Your task to perform on an android device: turn pop-ups on in chrome Image 0: 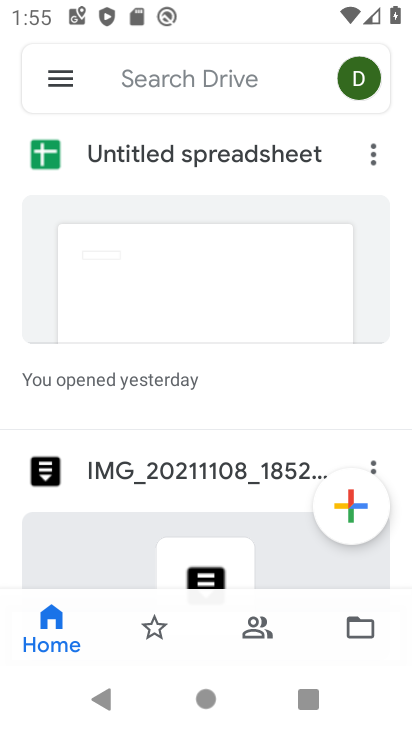
Step 0: press home button
Your task to perform on an android device: turn pop-ups on in chrome Image 1: 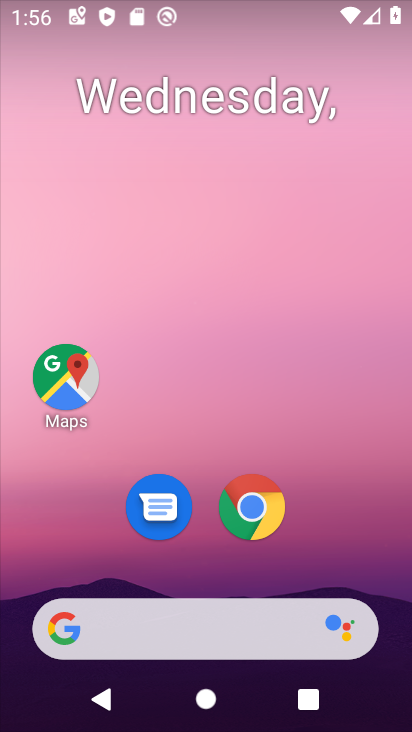
Step 1: drag from (369, 507) to (319, 177)
Your task to perform on an android device: turn pop-ups on in chrome Image 2: 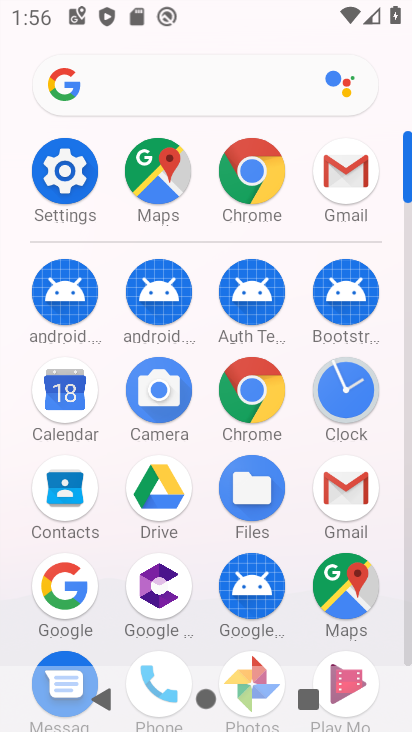
Step 2: click (269, 397)
Your task to perform on an android device: turn pop-ups on in chrome Image 3: 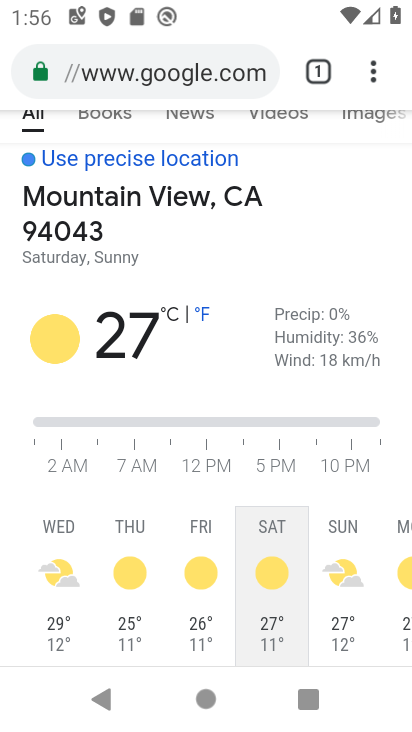
Step 3: drag from (370, 64) to (211, 493)
Your task to perform on an android device: turn pop-ups on in chrome Image 4: 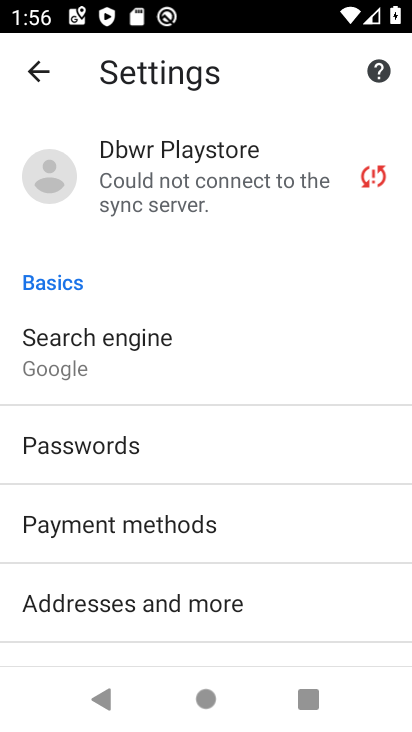
Step 4: drag from (291, 568) to (285, 291)
Your task to perform on an android device: turn pop-ups on in chrome Image 5: 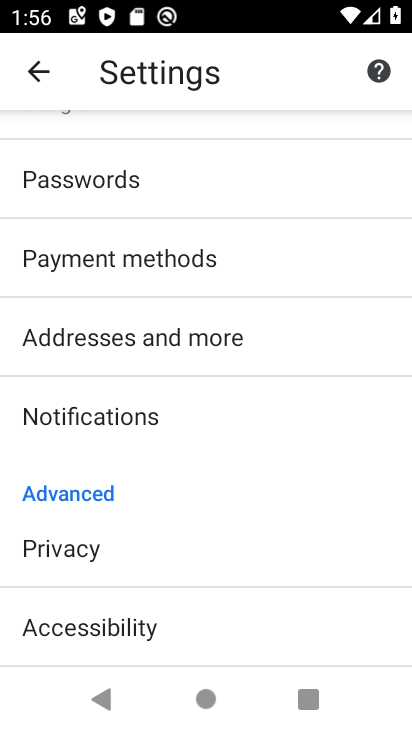
Step 5: drag from (272, 565) to (272, 283)
Your task to perform on an android device: turn pop-ups on in chrome Image 6: 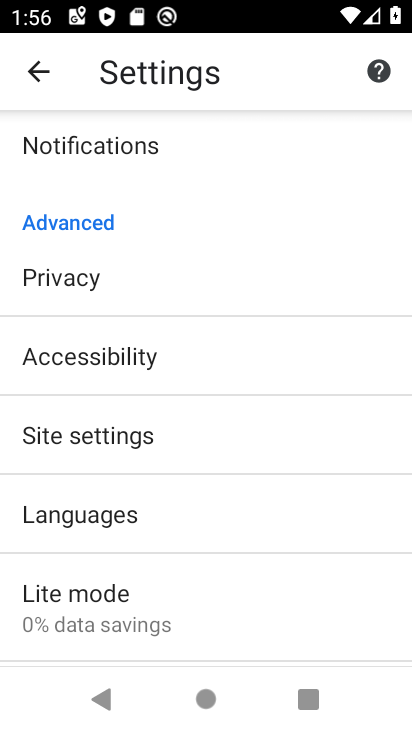
Step 6: click (173, 447)
Your task to perform on an android device: turn pop-ups on in chrome Image 7: 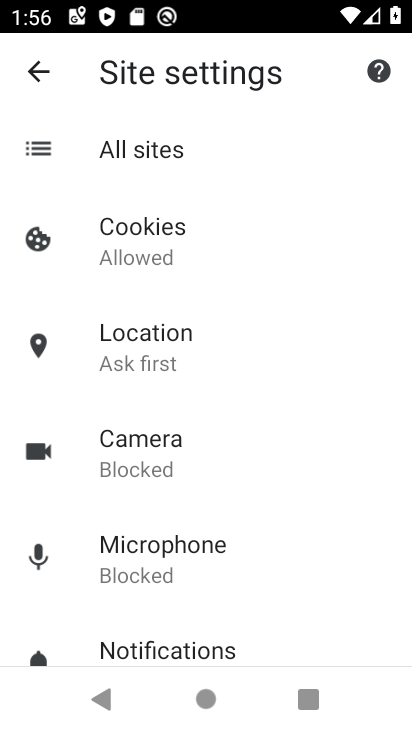
Step 7: drag from (275, 541) to (277, 317)
Your task to perform on an android device: turn pop-ups on in chrome Image 8: 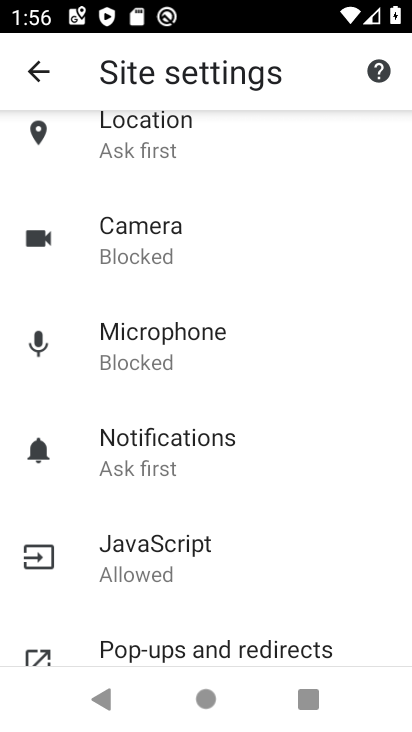
Step 8: drag from (284, 563) to (279, 266)
Your task to perform on an android device: turn pop-ups on in chrome Image 9: 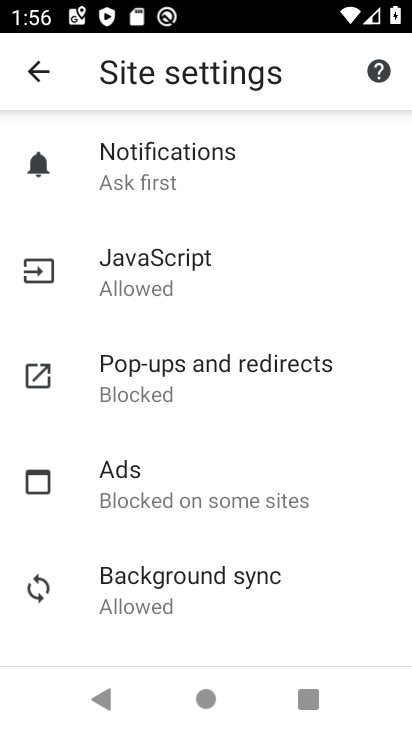
Step 9: click (205, 379)
Your task to perform on an android device: turn pop-ups on in chrome Image 10: 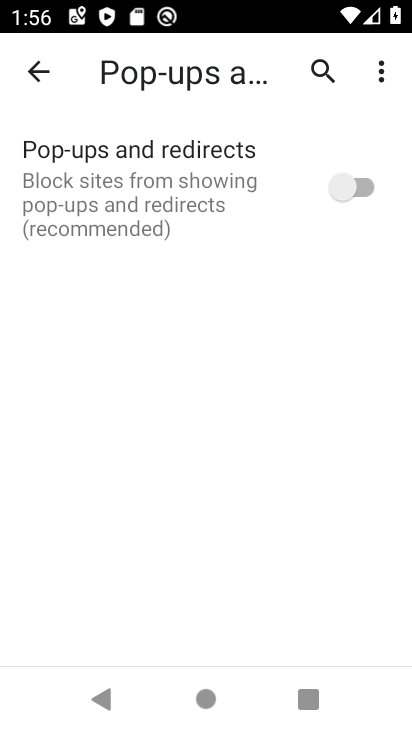
Step 10: click (367, 176)
Your task to perform on an android device: turn pop-ups on in chrome Image 11: 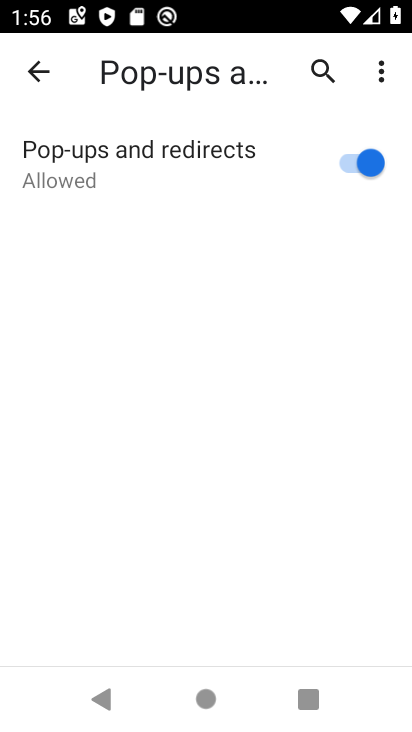
Step 11: task complete